Your task to perform on an android device: What's on the menu at Five Guys? Image 0: 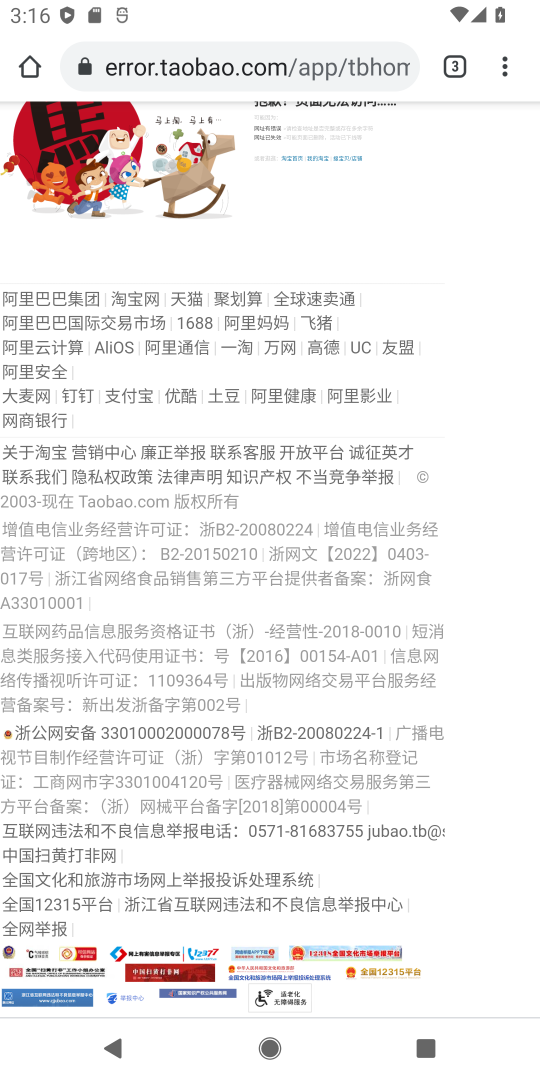
Step 0: press home button
Your task to perform on an android device: What's on the menu at Five Guys? Image 1: 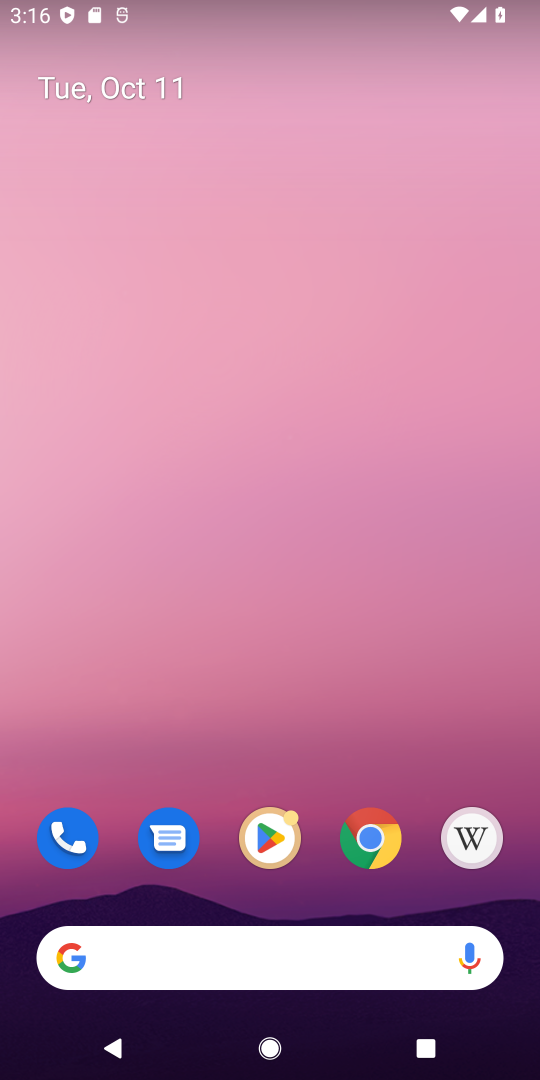
Step 1: click (156, 947)
Your task to perform on an android device: What's on the menu at Five Guys? Image 2: 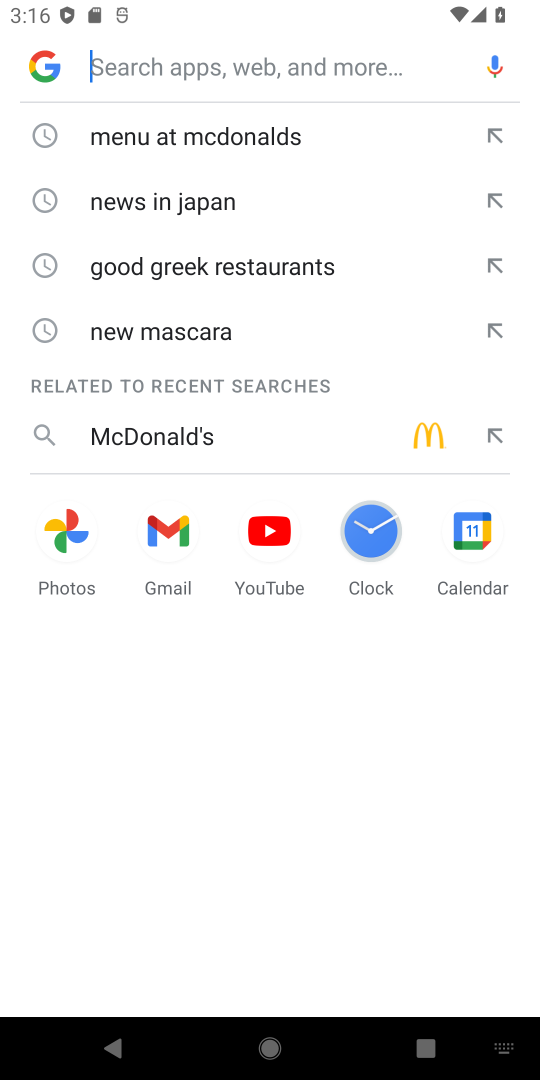
Step 2: type "menu at Five Guys"
Your task to perform on an android device: What's on the menu at Five Guys? Image 3: 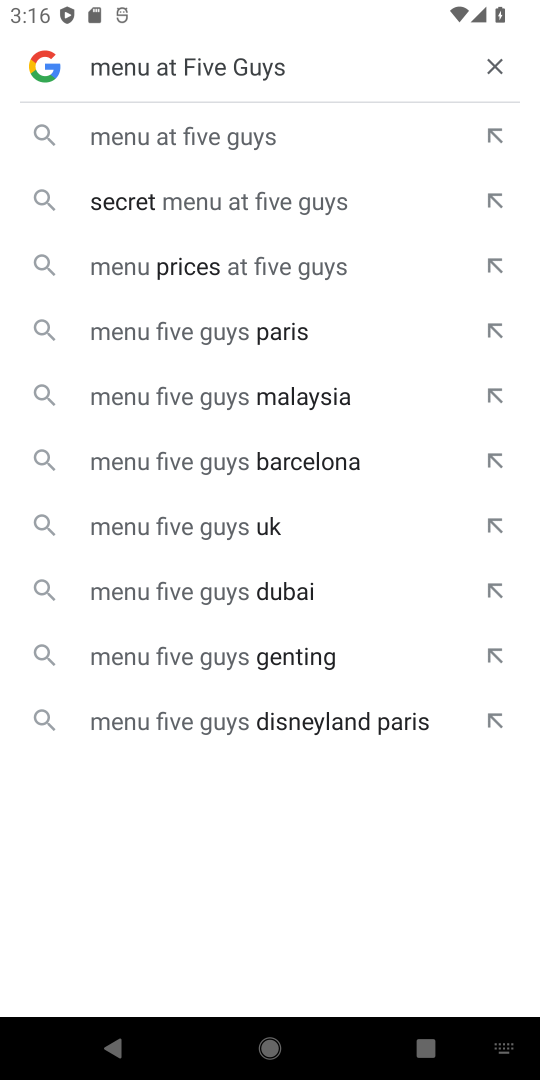
Step 3: click (266, 138)
Your task to perform on an android device: What's on the menu at Five Guys? Image 4: 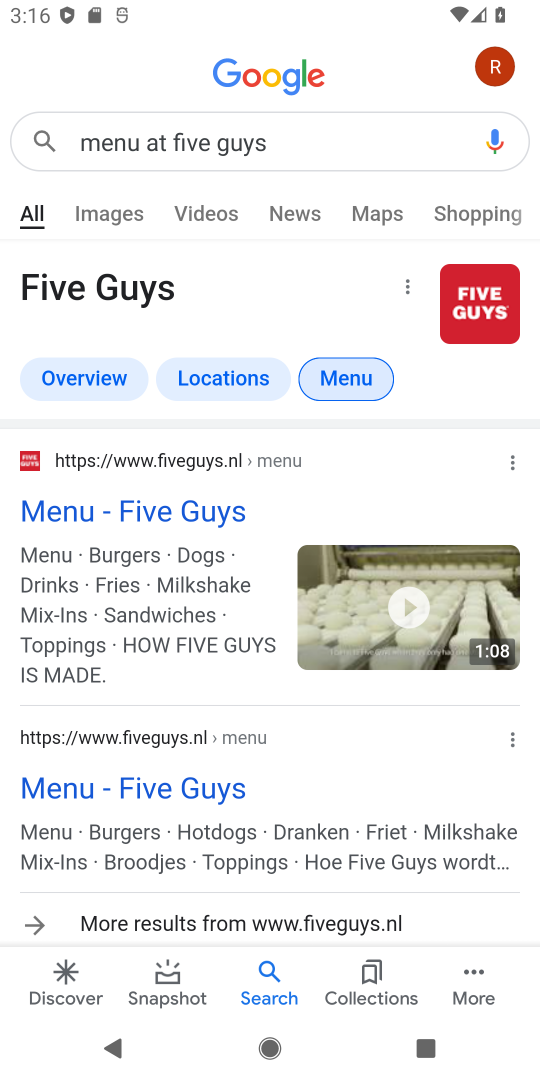
Step 4: click (152, 509)
Your task to perform on an android device: What's on the menu at Five Guys? Image 5: 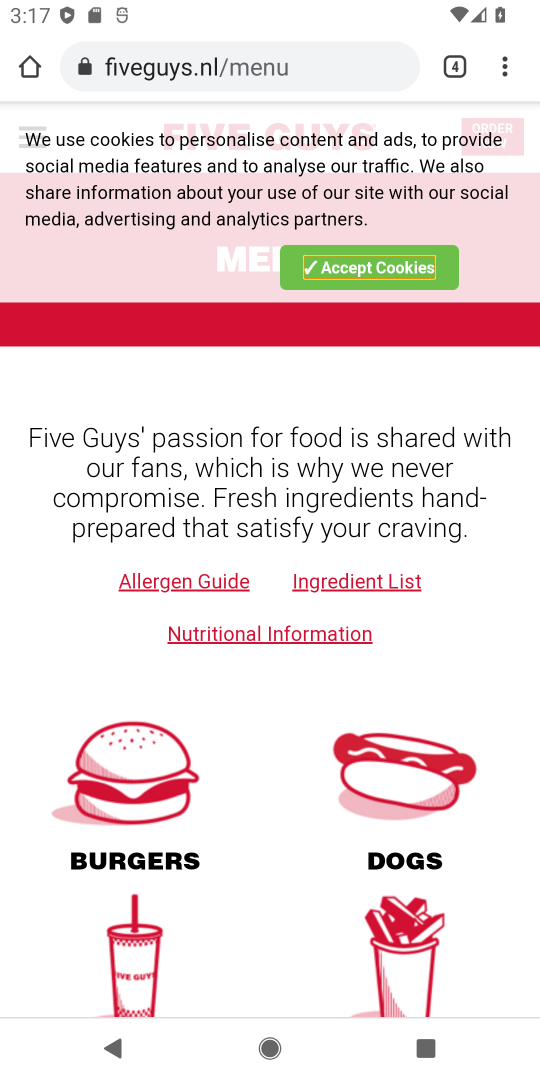
Step 5: task complete